Your task to perform on an android device: check battery use Image 0: 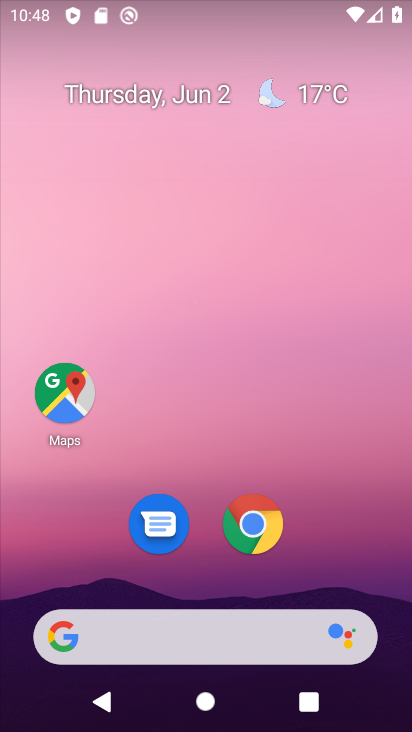
Step 0: drag from (314, 495) to (324, 4)
Your task to perform on an android device: check battery use Image 1: 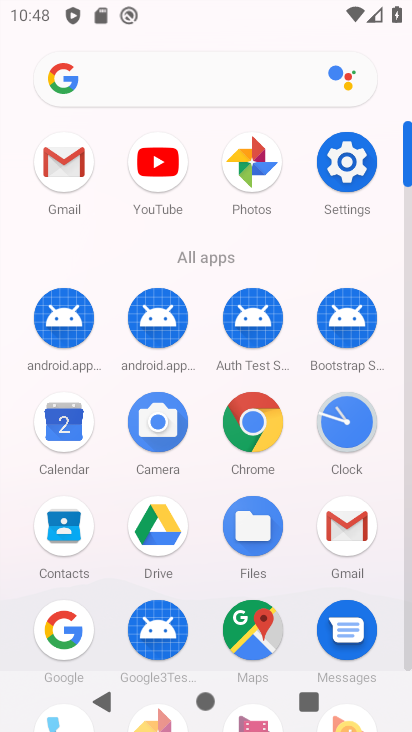
Step 1: click (348, 167)
Your task to perform on an android device: check battery use Image 2: 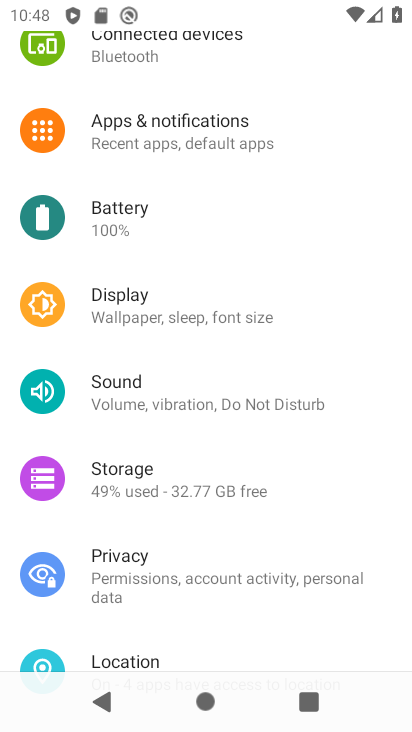
Step 2: click (179, 212)
Your task to perform on an android device: check battery use Image 3: 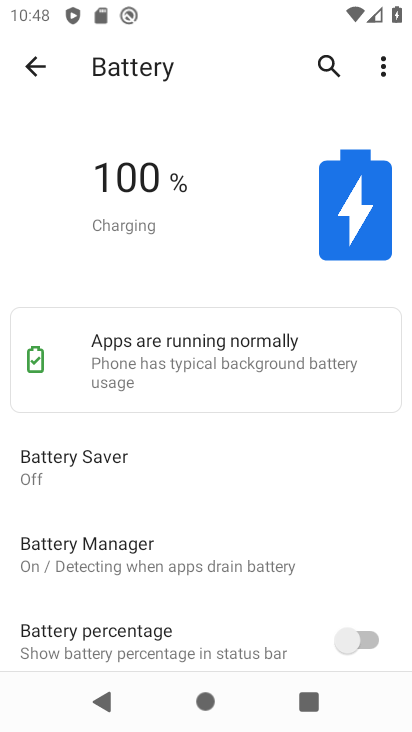
Step 3: click (382, 69)
Your task to perform on an android device: check battery use Image 4: 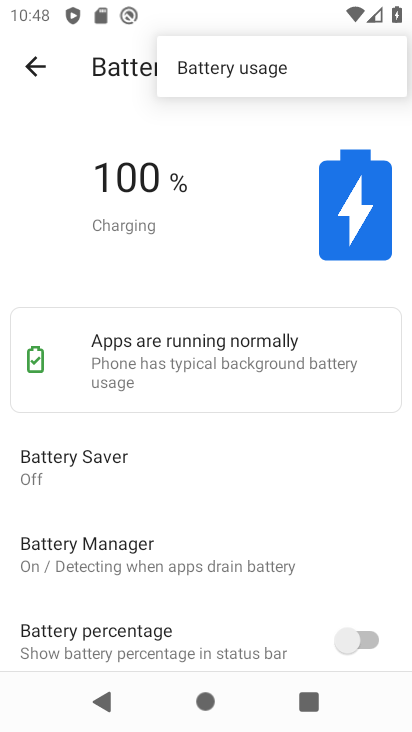
Step 4: click (295, 73)
Your task to perform on an android device: check battery use Image 5: 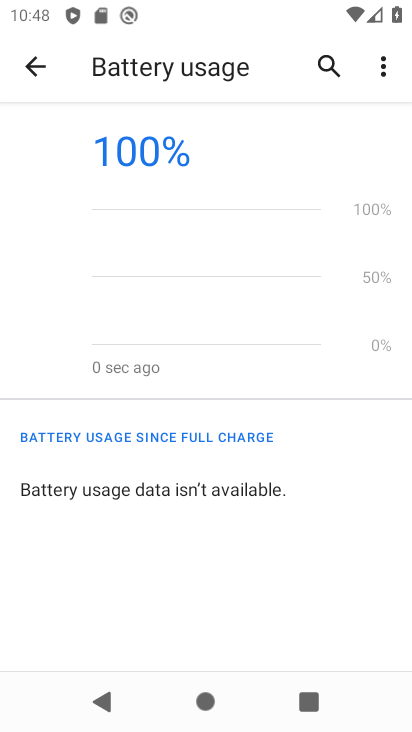
Step 5: task complete